Your task to perform on an android device: toggle priority inbox in the gmail app Image 0: 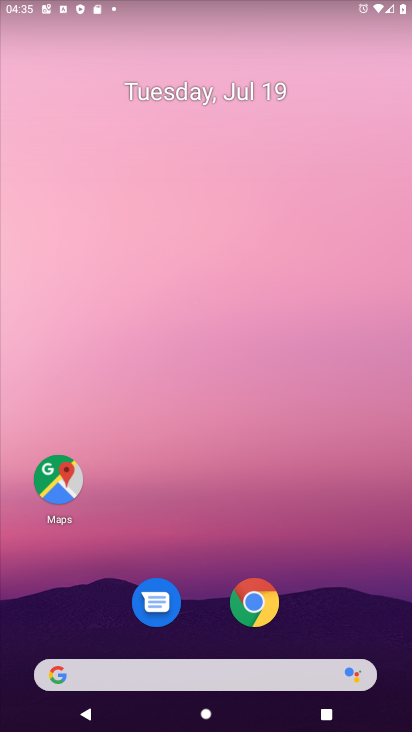
Step 0: drag from (189, 615) to (198, 44)
Your task to perform on an android device: toggle priority inbox in the gmail app Image 1: 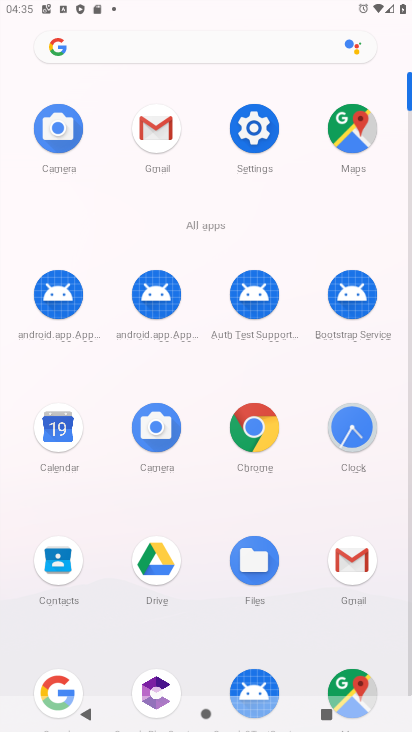
Step 1: click (148, 142)
Your task to perform on an android device: toggle priority inbox in the gmail app Image 2: 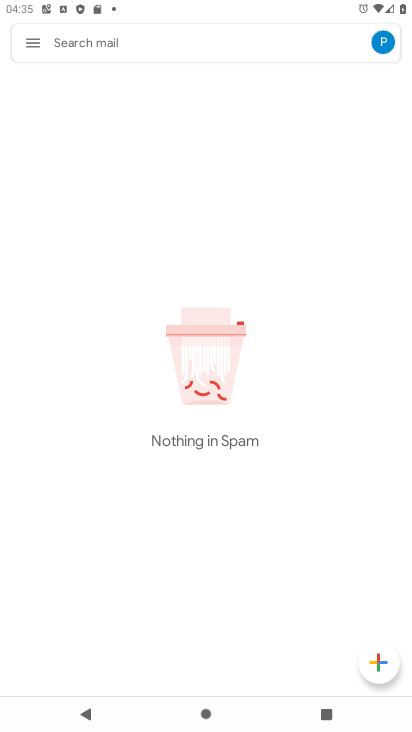
Step 2: click (24, 46)
Your task to perform on an android device: toggle priority inbox in the gmail app Image 3: 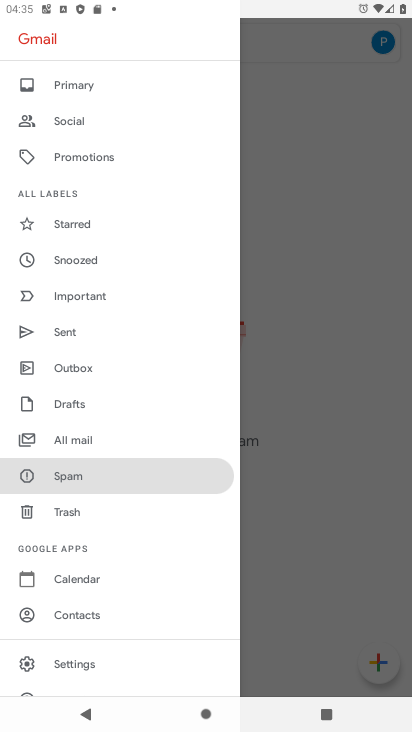
Step 3: click (115, 649)
Your task to perform on an android device: toggle priority inbox in the gmail app Image 4: 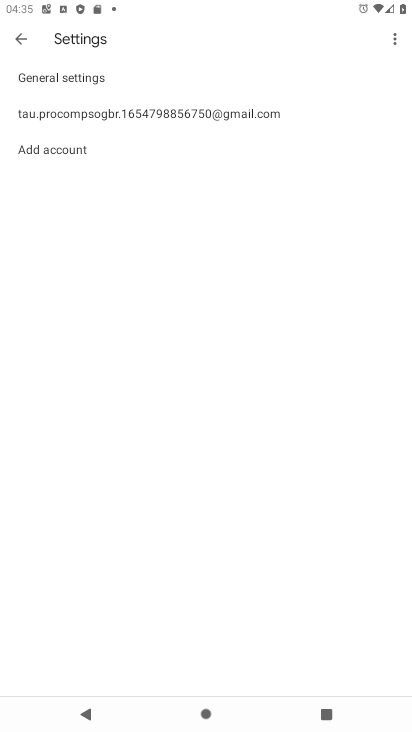
Step 4: click (290, 104)
Your task to perform on an android device: toggle priority inbox in the gmail app Image 5: 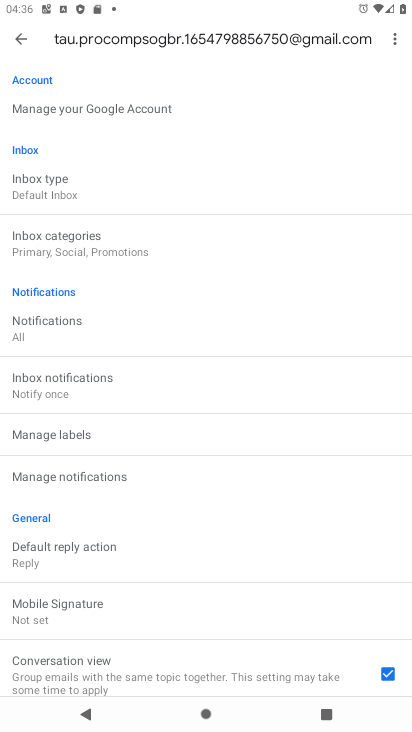
Step 5: click (152, 183)
Your task to perform on an android device: toggle priority inbox in the gmail app Image 6: 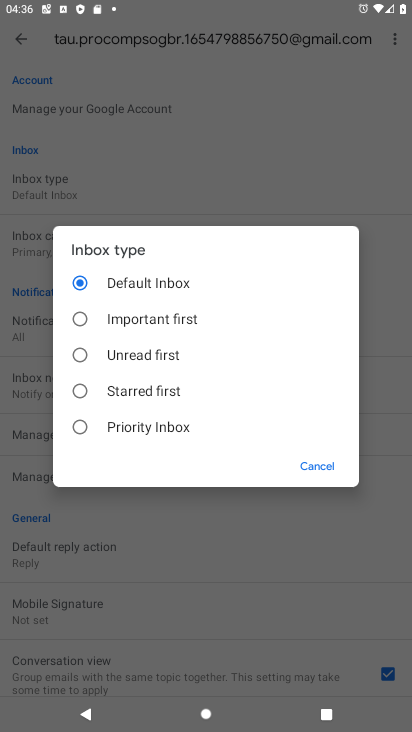
Step 6: click (81, 436)
Your task to perform on an android device: toggle priority inbox in the gmail app Image 7: 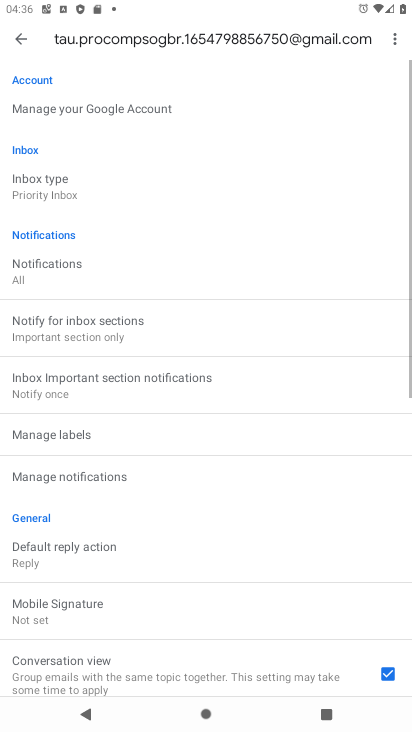
Step 7: task complete